Your task to perform on an android device: move a message to another label in the gmail app Image 0: 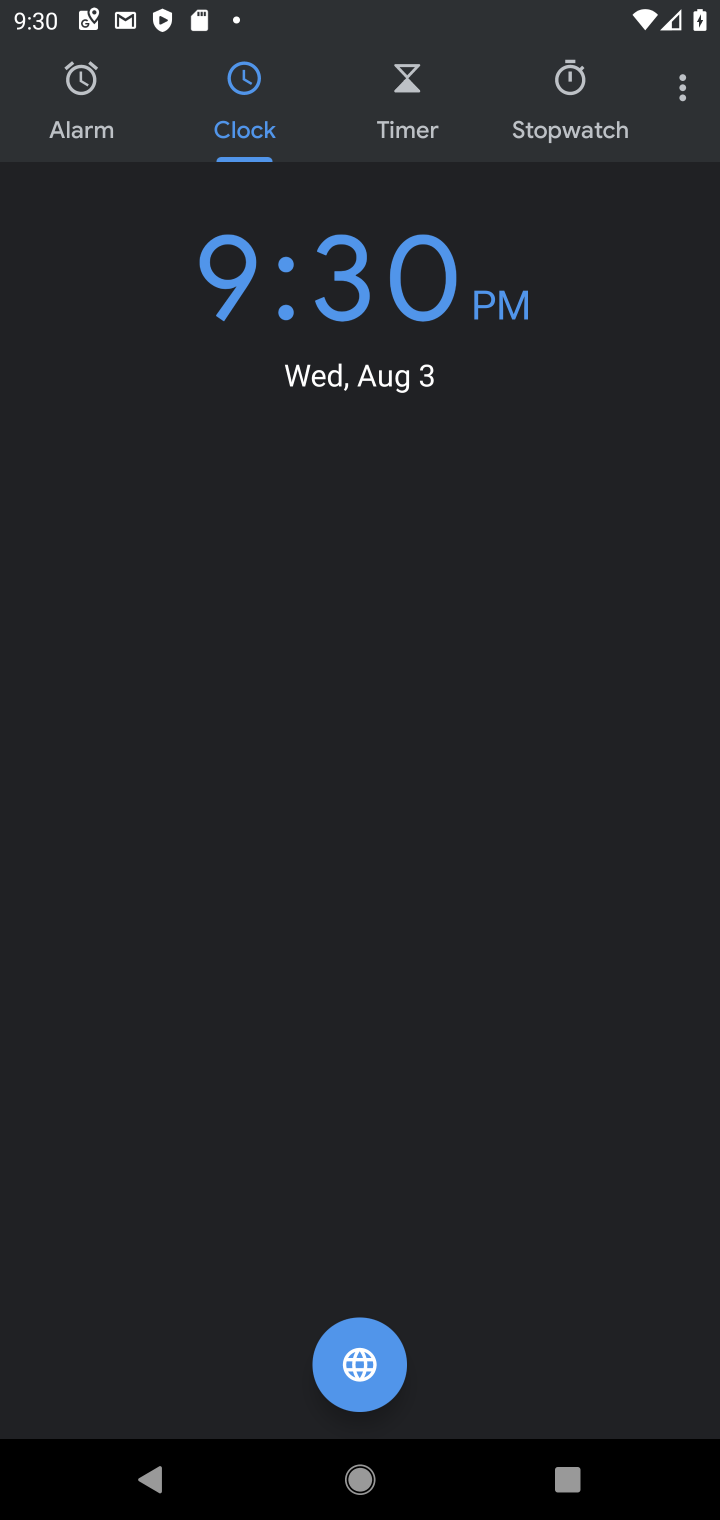
Step 0: press back button
Your task to perform on an android device: move a message to another label in the gmail app Image 1: 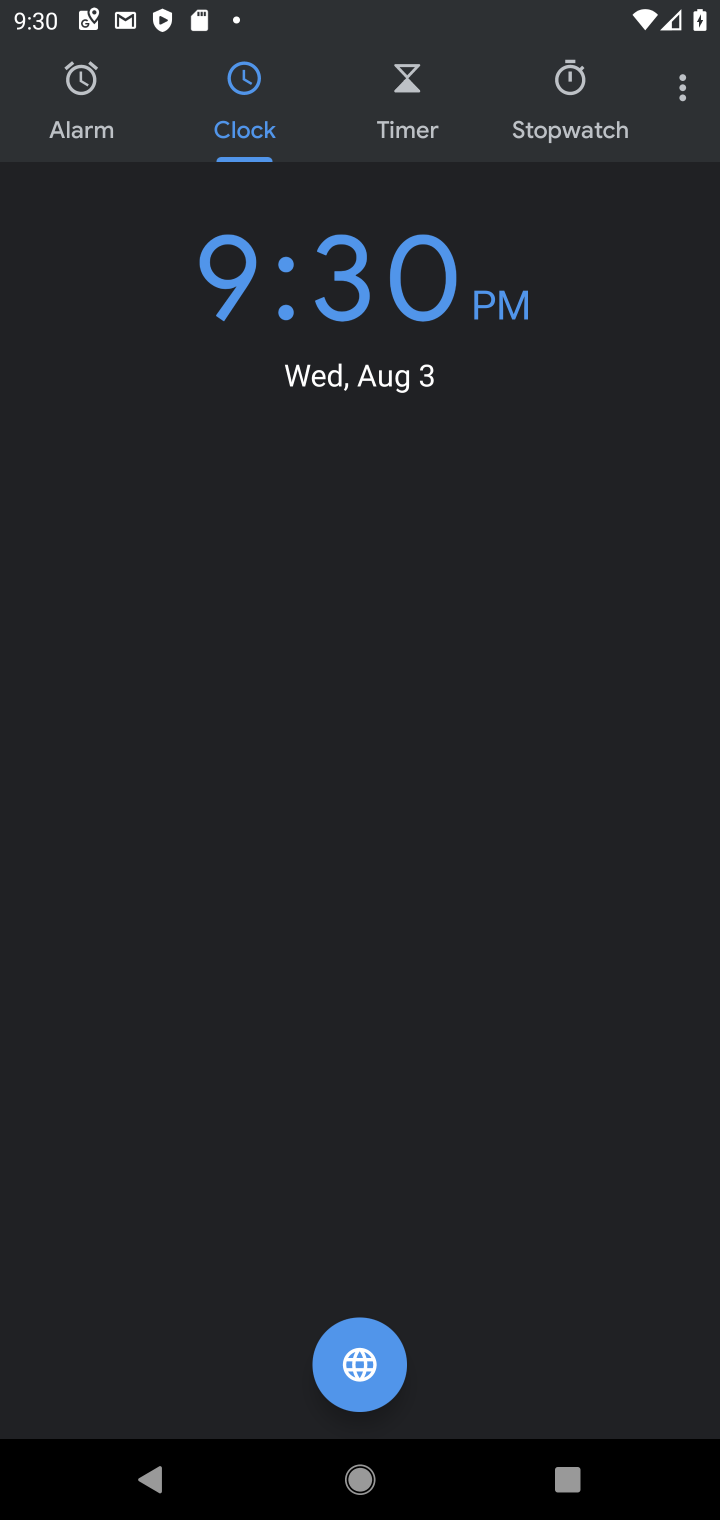
Step 1: press back button
Your task to perform on an android device: move a message to another label in the gmail app Image 2: 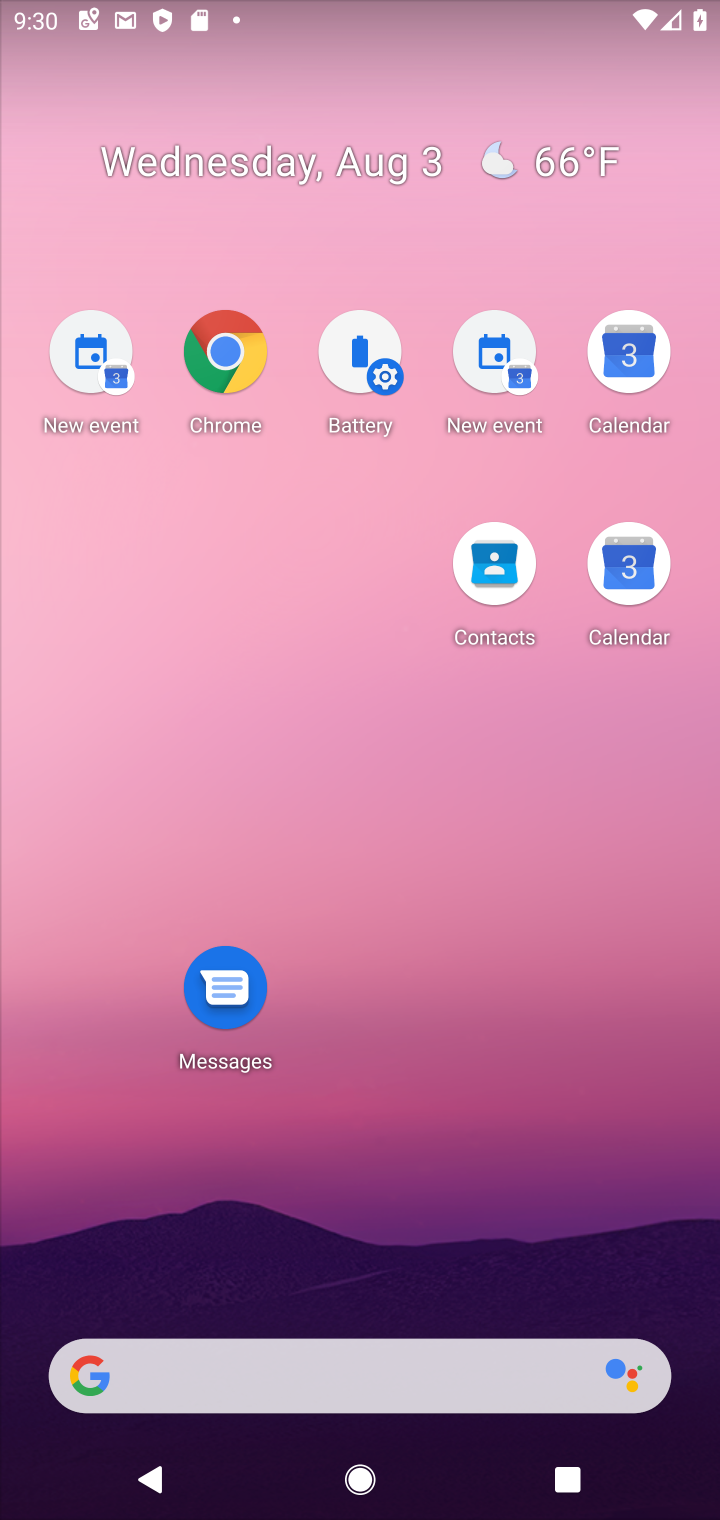
Step 2: drag from (390, 1364) to (384, 230)
Your task to perform on an android device: move a message to another label in the gmail app Image 3: 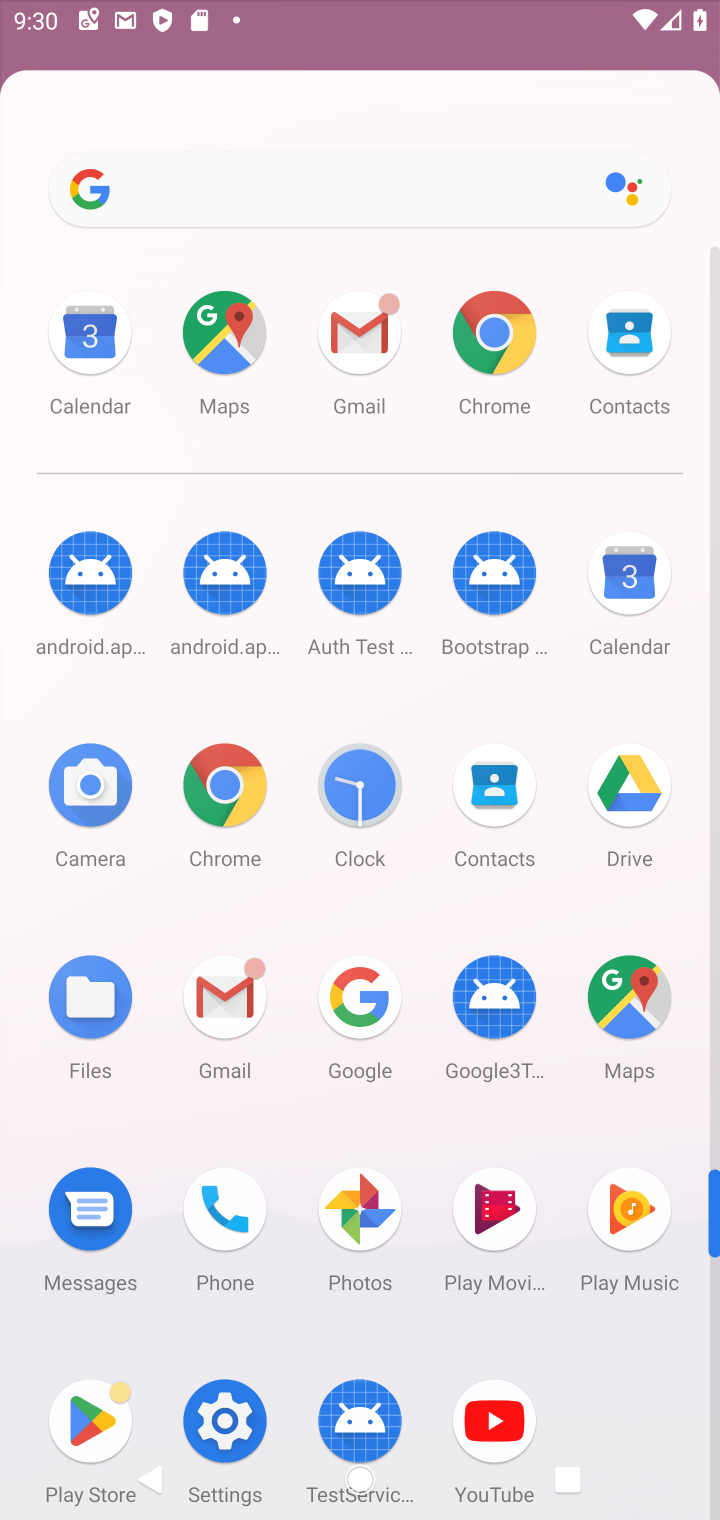
Step 3: drag from (319, 1008) to (216, 409)
Your task to perform on an android device: move a message to another label in the gmail app Image 4: 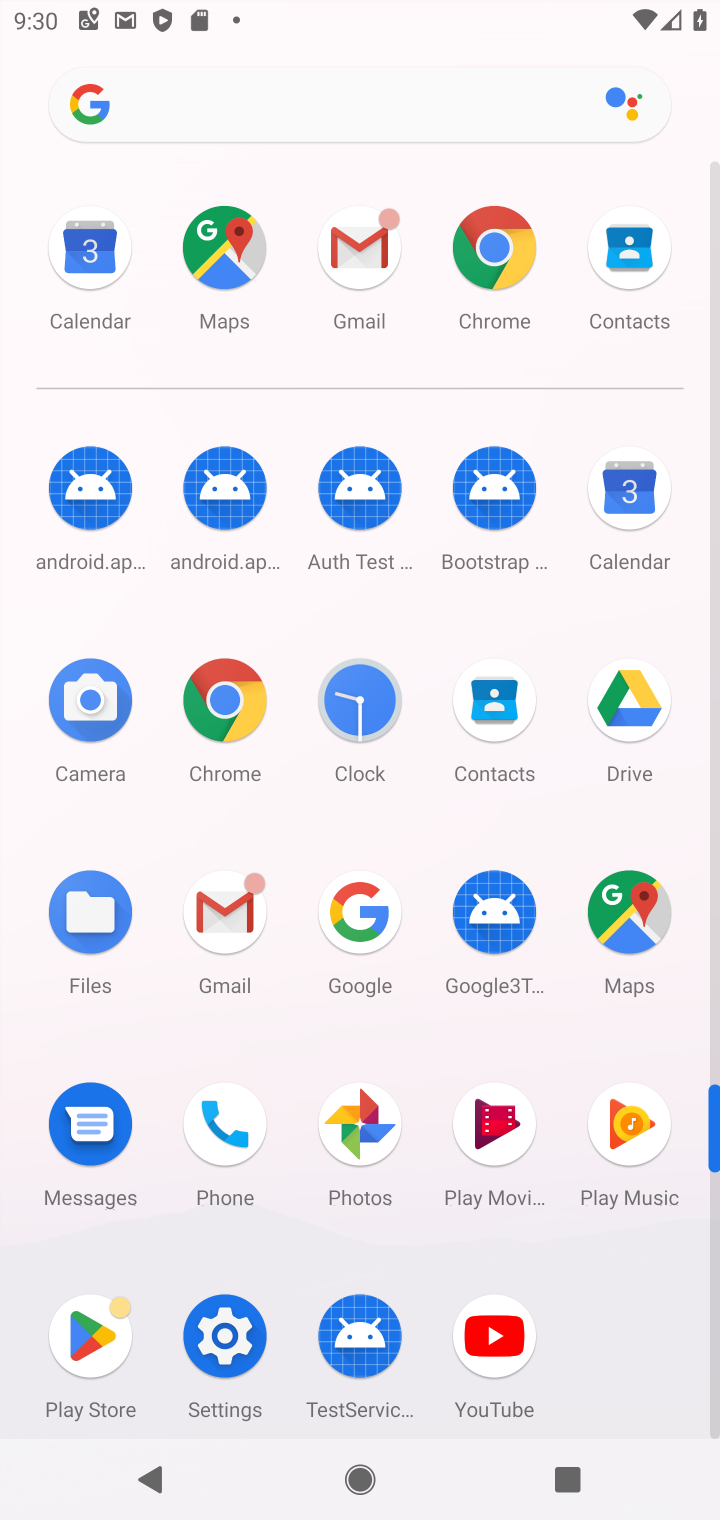
Step 4: click (213, 910)
Your task to perform on an android device: move a message to another label in the gmail app Image 5: 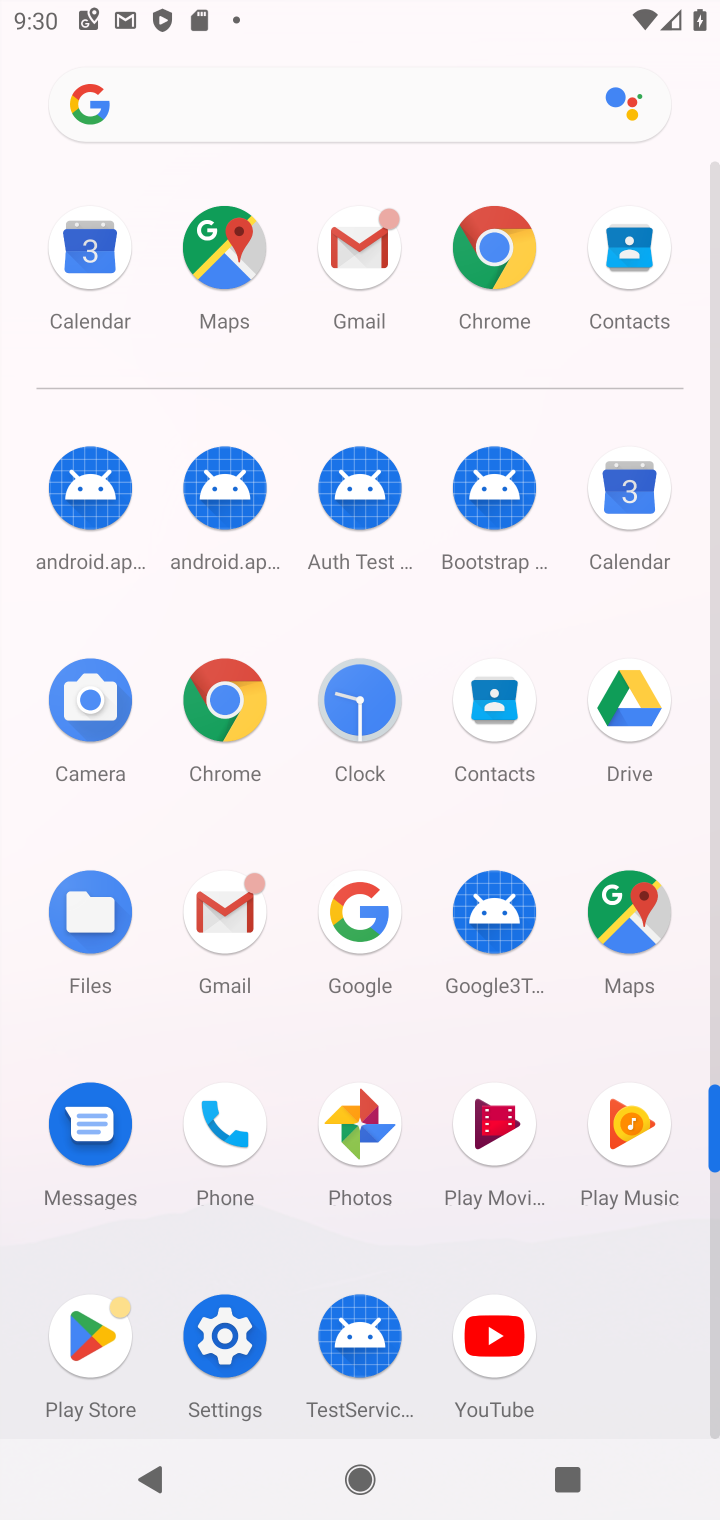
Step 5: click (213, 910)
Your task to perform on an android device: move a message to another label in the gmail app Image 6: 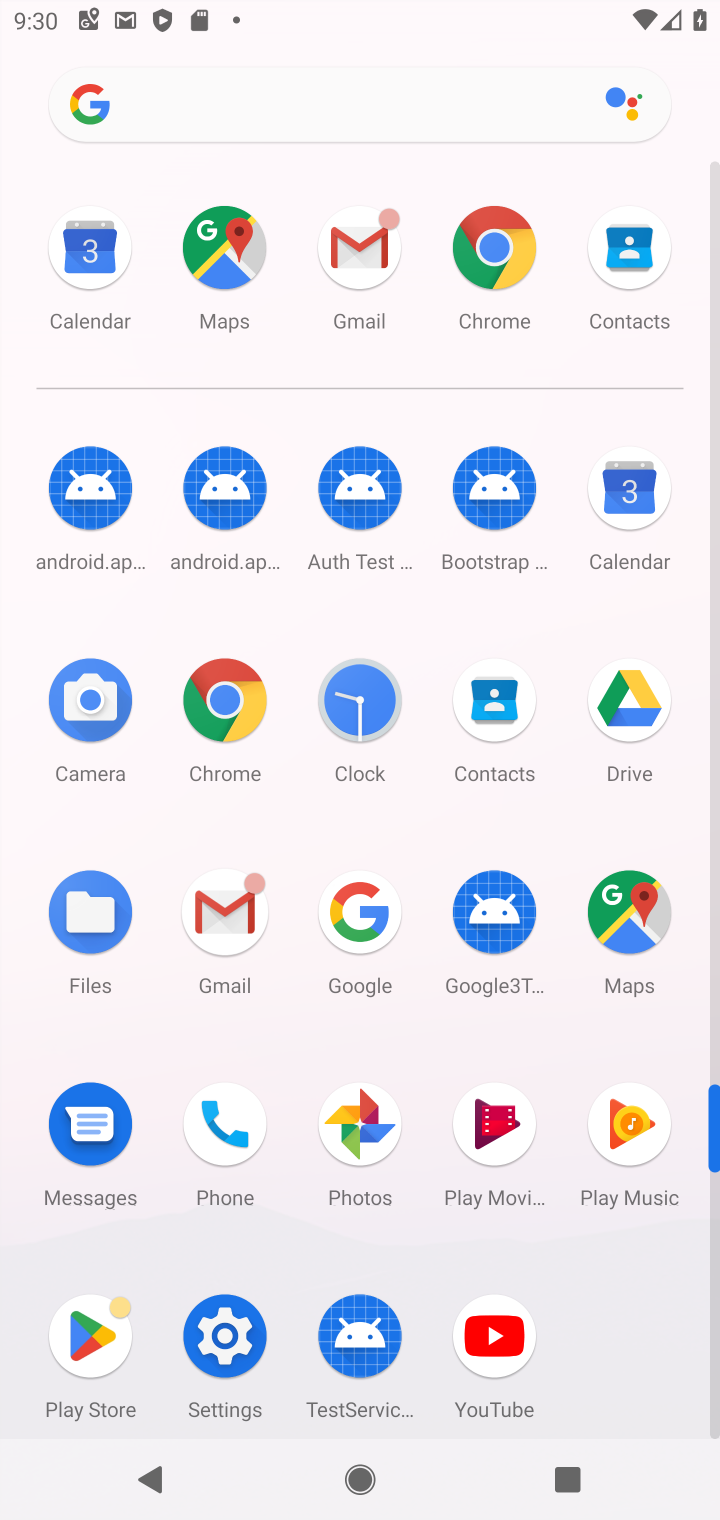
Step 6: click (215, 912)
Your task to perform on an android device: move a message to another label in the gmail app Image 7: 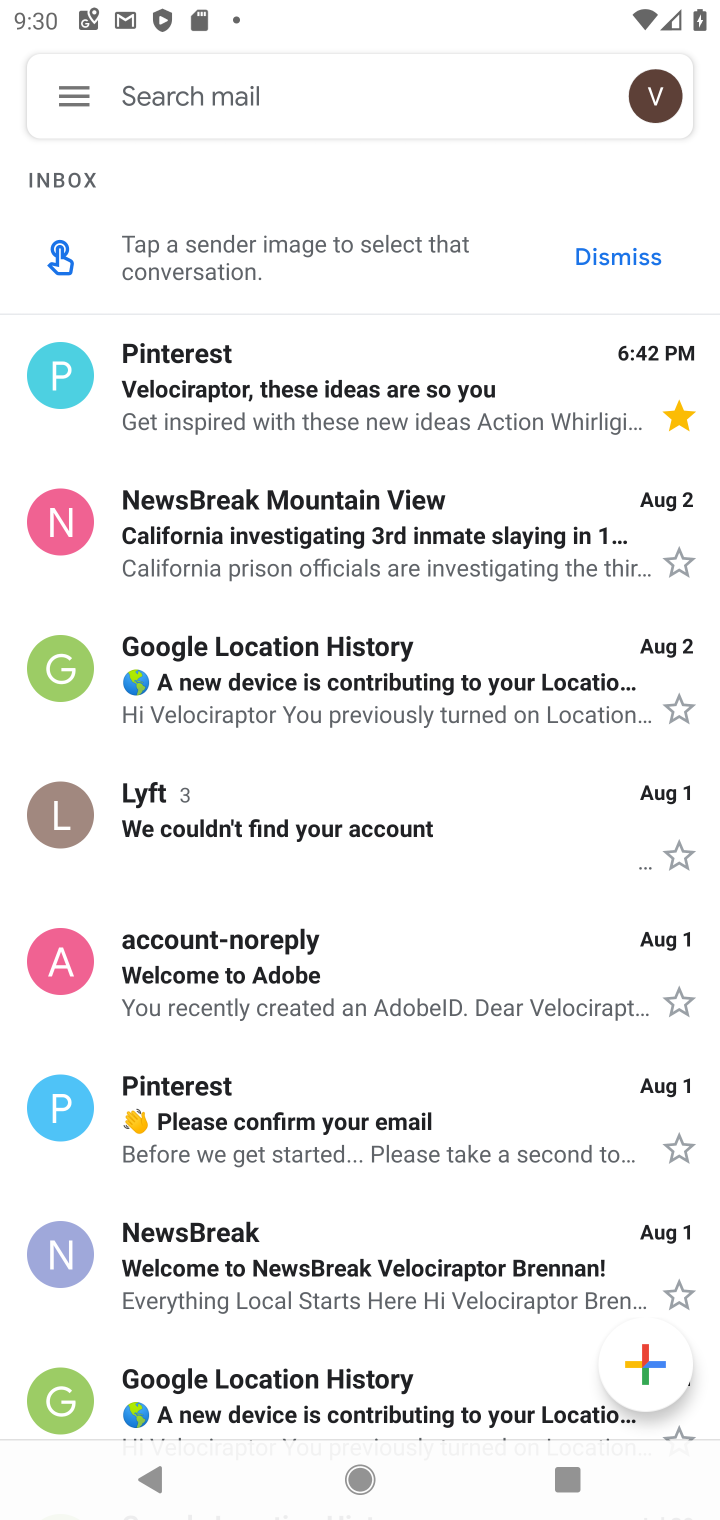
Step 7: click (668, 571)
Your task to perform on an android device: move a message to another label in the gmail app Image 8: 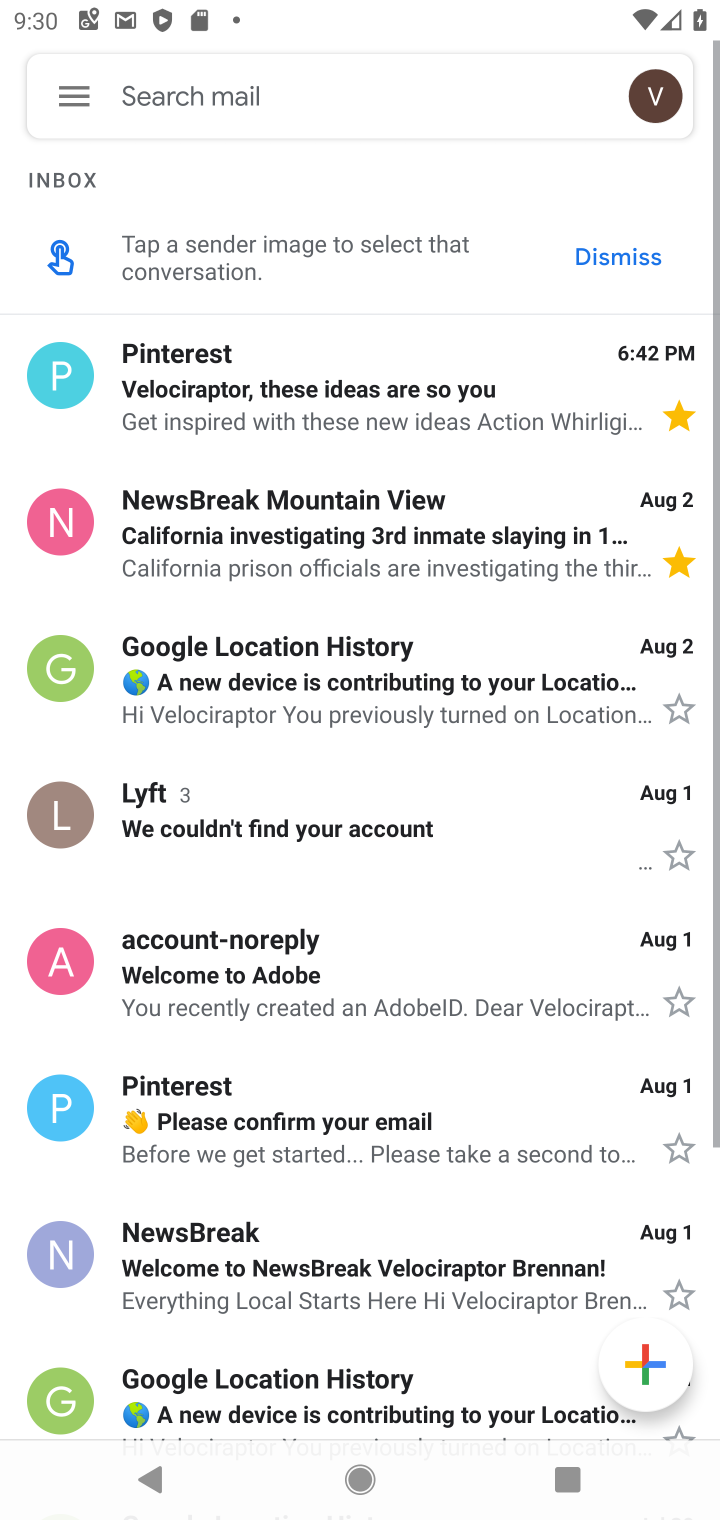
Step 8: task complete